Your task to perform on an android device: open chrome and create a bookmark for the current page Image 0: 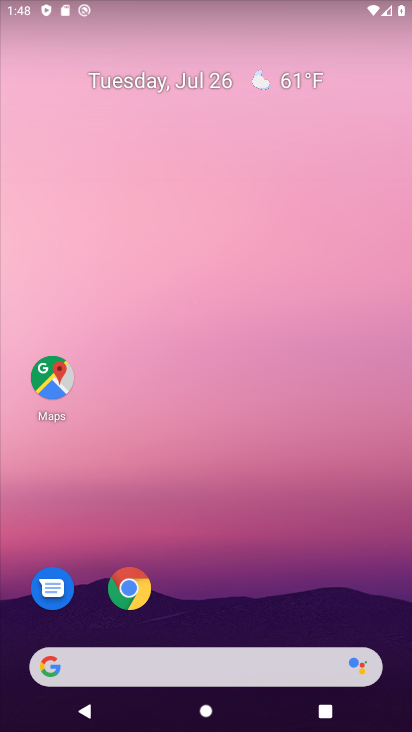
Step 0: drag from (307, 408) to (312, 38)
Your task to perform on an android device: open chrome and create a bookmark for the current page Image 1: 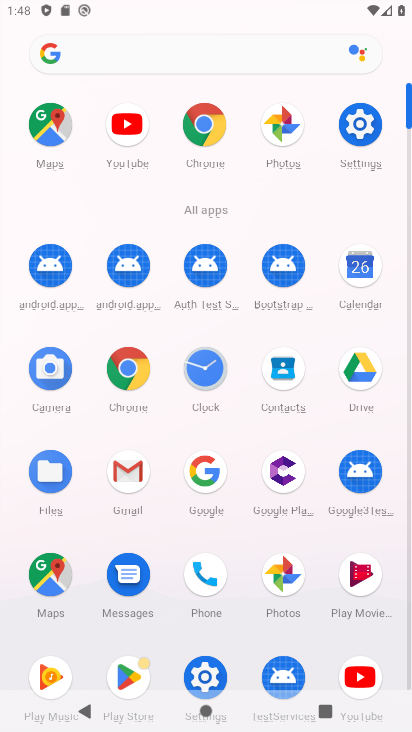
Step 1: click (222, 125)
Your task to perform on an android device: open chrome and create a bookmark for the current page Image 2: 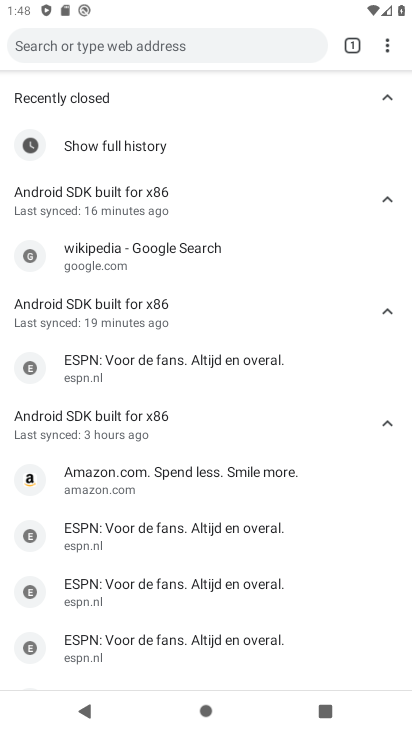
Step 2: task complete